Your task to perform on an android device: Turn on the flashlight Image 0: 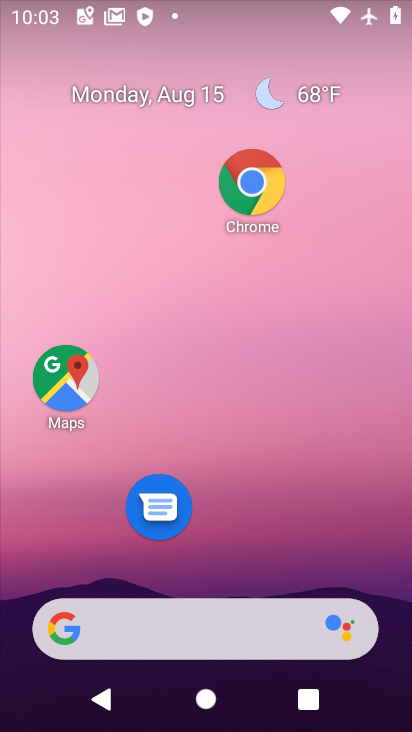
Step 0: drag from (262, 596) to (290, 35)
Your task to perform on an android device: Turn on the flashlight Image 1: 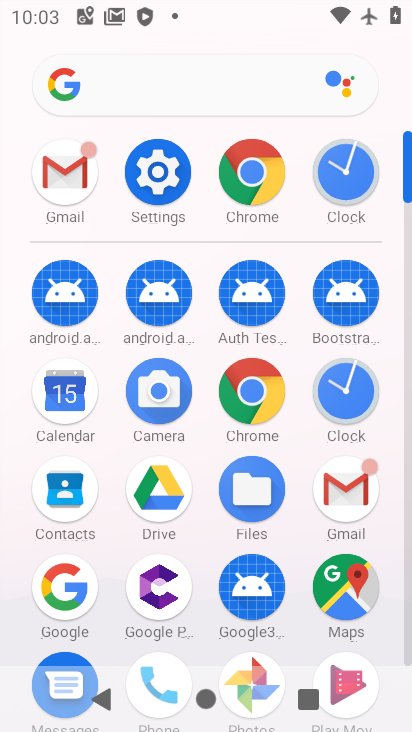
Step 1: click (150, 199)
Your task to perform on an android device: Turn on the flashlight Image 2: 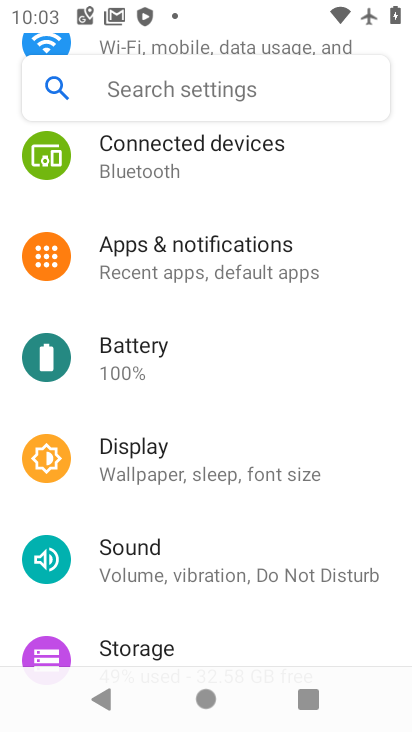
Step 2: task complete